Your task to perform on an android device: turn on the 12-hour format for clock Image 0: 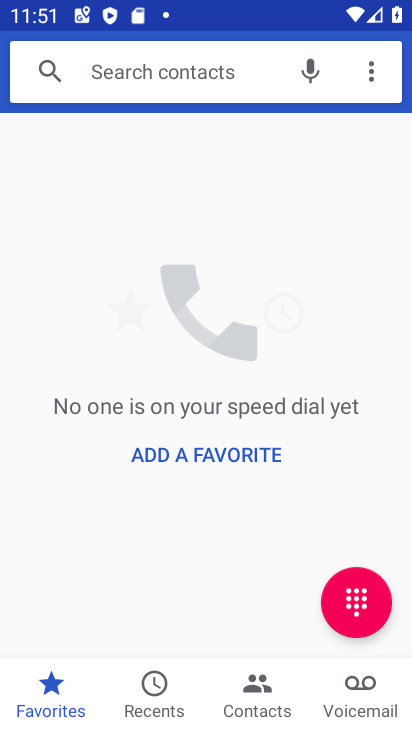
Step 0: press home button
Your task to perform on an android device: turn on the 12-hour format for clock Image 1: 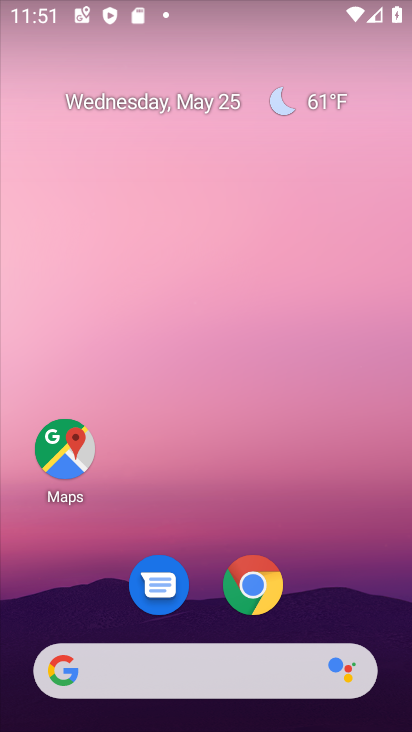
Step 1: drag from (215, 513) to (252, 82)
Your task to perform on an android device: turn on the 12-hour format for clock Image 2: 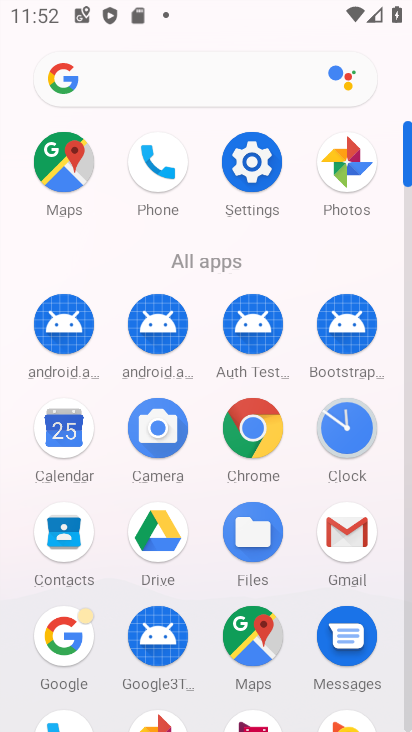
Step 2: click (339, 426)
Your task to perform on an android device: turn on the 12-hour format for clock Image 3: 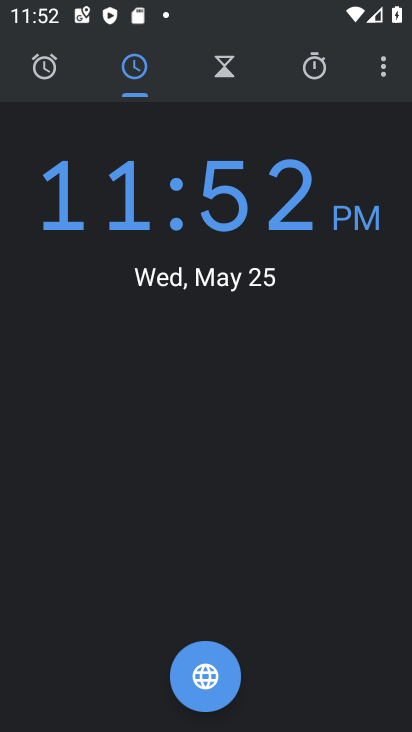
Step 3: click (386, 75)
Your task to perform on an android device: turn on the 12-hour format for clock Image 4: 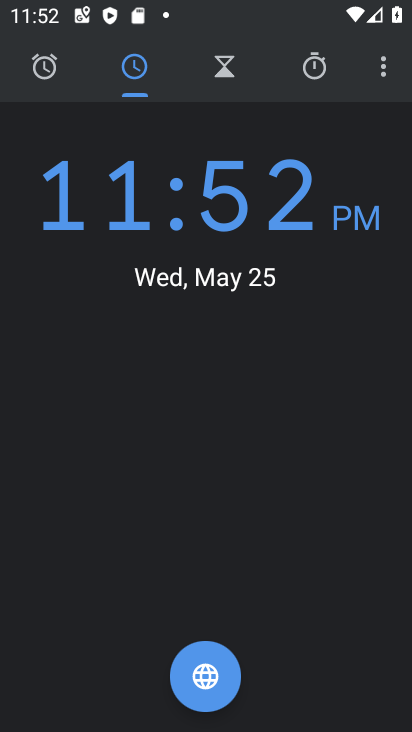
Step 4: click (384, 60)
Your task to perform on an android device: turn on the 12-hour format for clock Image 5: 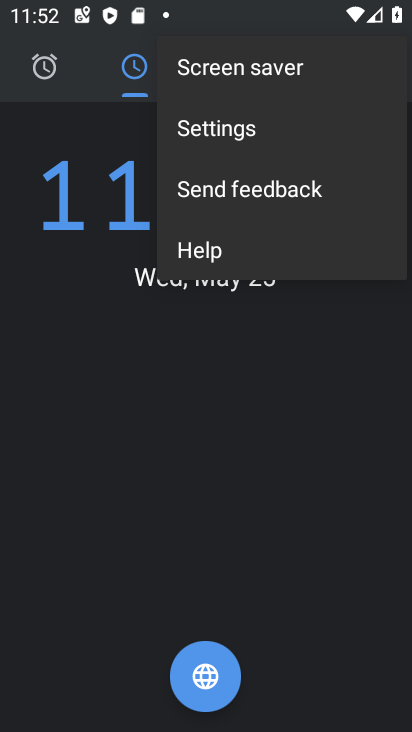
Step 5: click (292, 127)
Your task to perform on an android device: turn on the 12-hour format for clock Image 6: 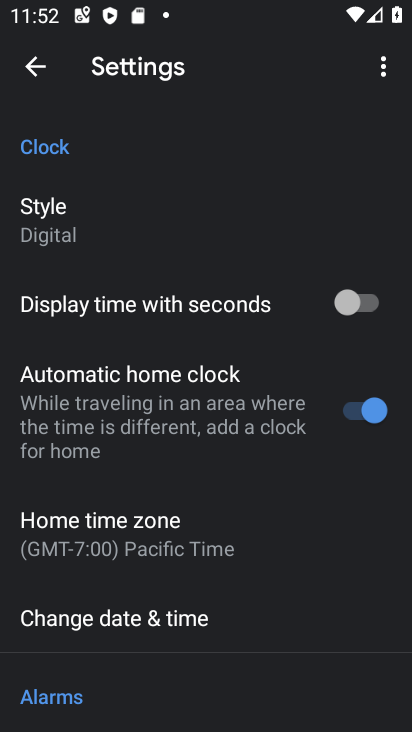
Step 6: drag from (263, 551) to (287, 384)
Your task to perform on an android device: turn on the 12-hour format for clock Image 7: 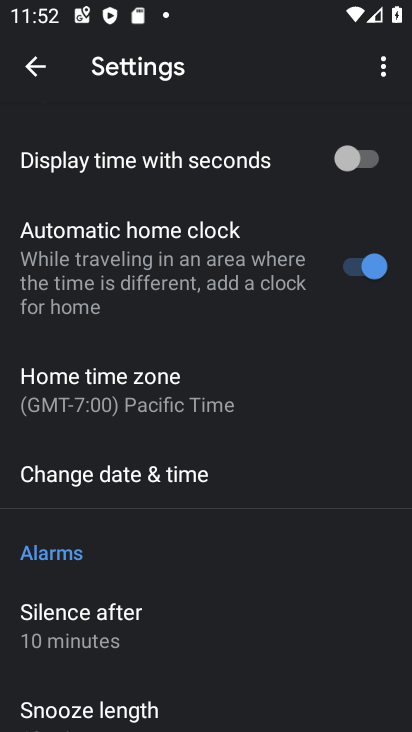
Step 7: click (289, 486)
Your task to perform on an android device: turn on the 12-hour format for clock Image 8: 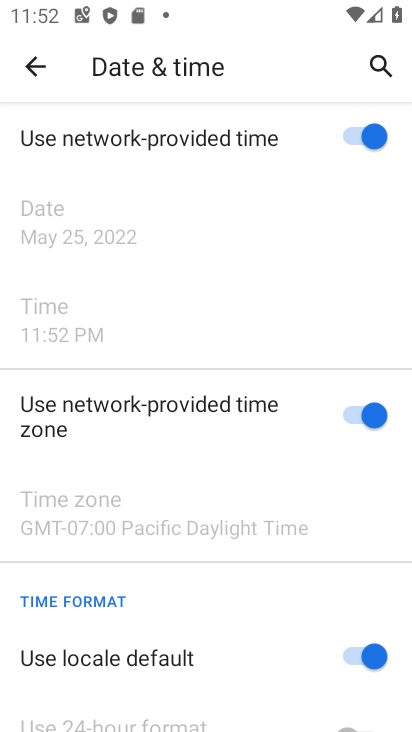
Step 8: task complete